Your task to perform on an android device: What's on my calendar today? Image 0: 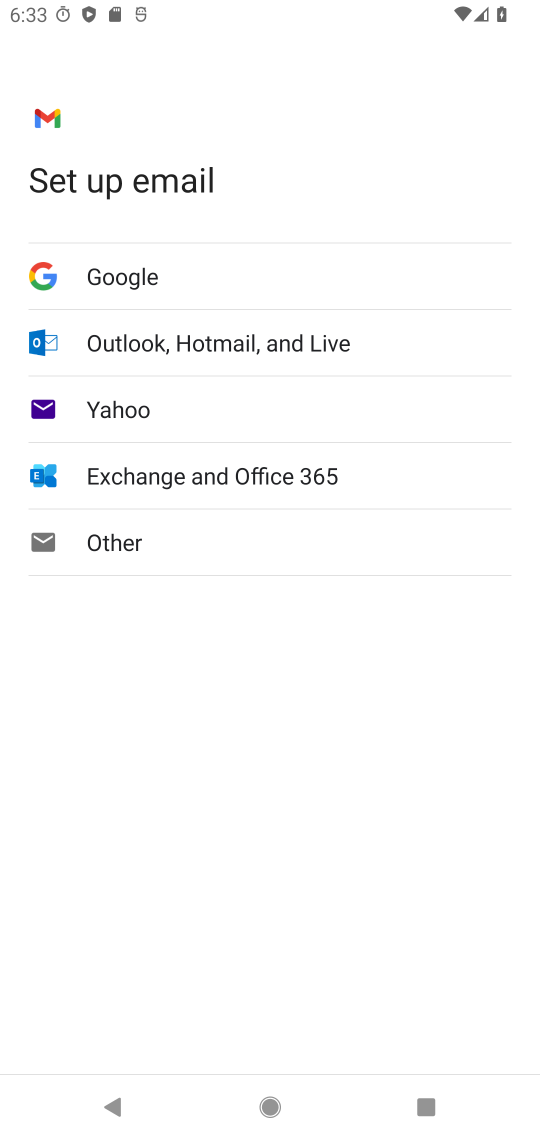
Step 0: press home button
Your task to perform on an android device: What's on my calendar today? Image 1: 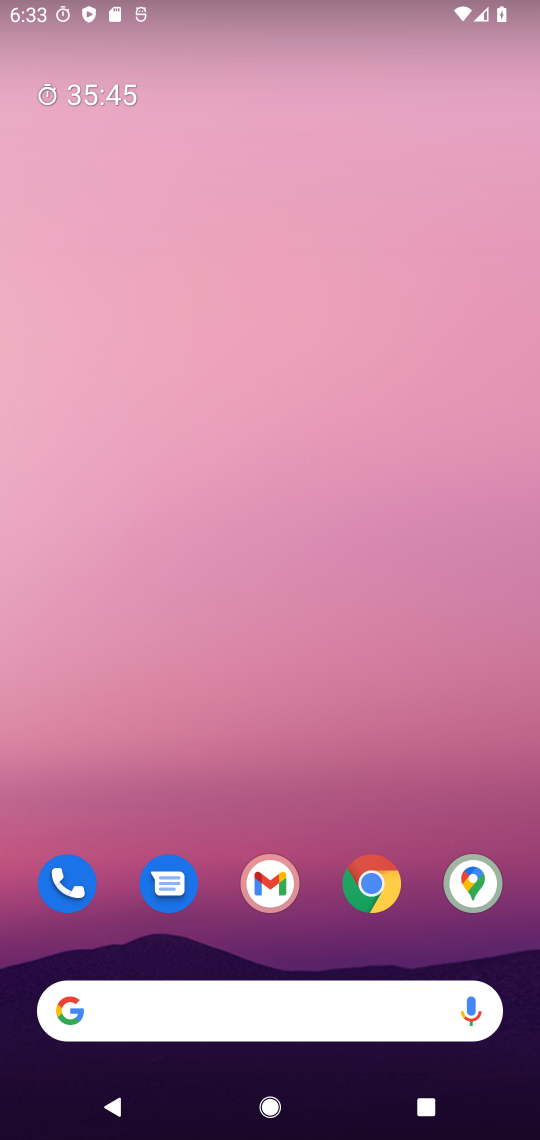
Step 1: drag from (206, 792) to (222, 296)
Your task to perform on an android device: What's on my calendar today? Image 2: 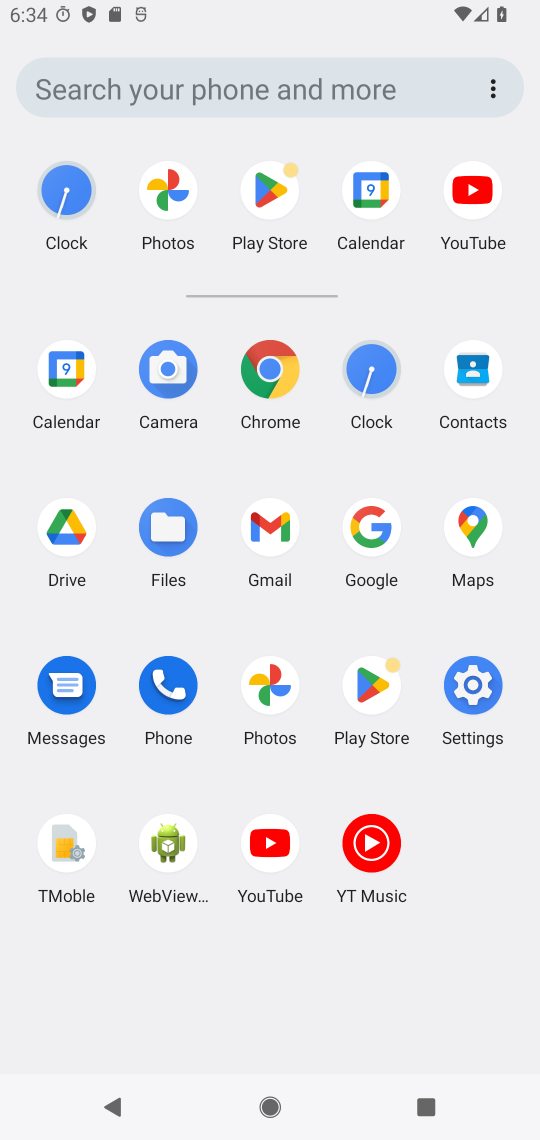
Step 2: click (80, 370)
Your task to perform on an android device: What's on my calendar today? Image 3: 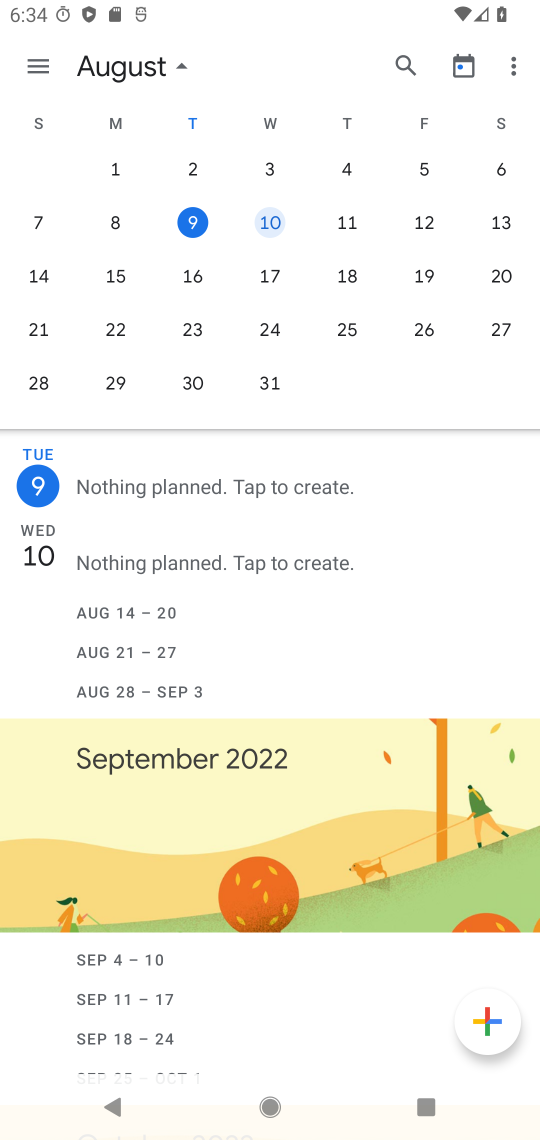
Step 3: click (270, 224)
Your task to perform on an android device: What's on my calendar today? Image 4: 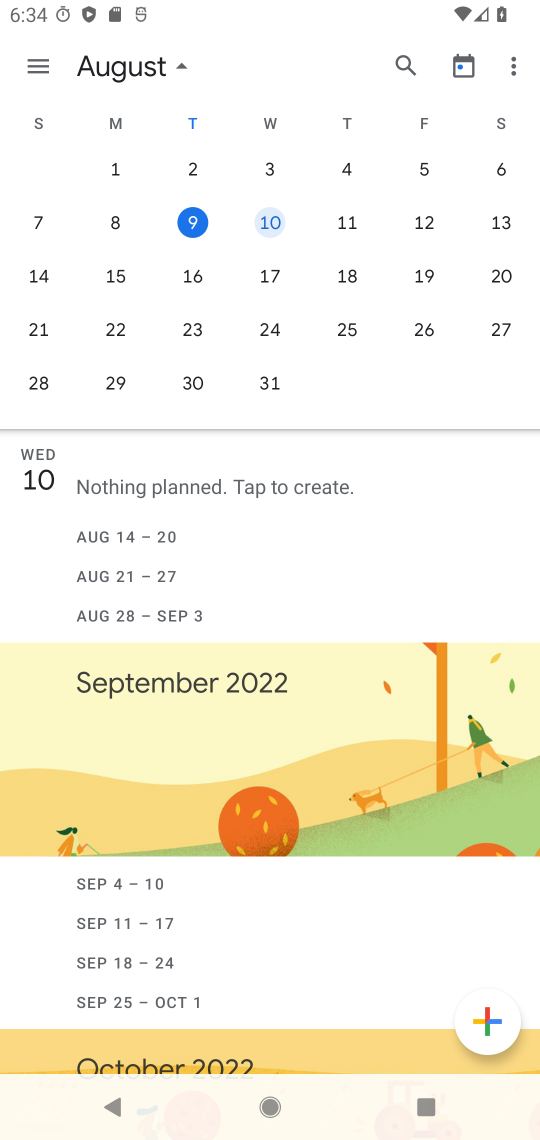
Step 4: click (207, 212)
Your task to perform on an android device: What's on my calendar today? Image 5: 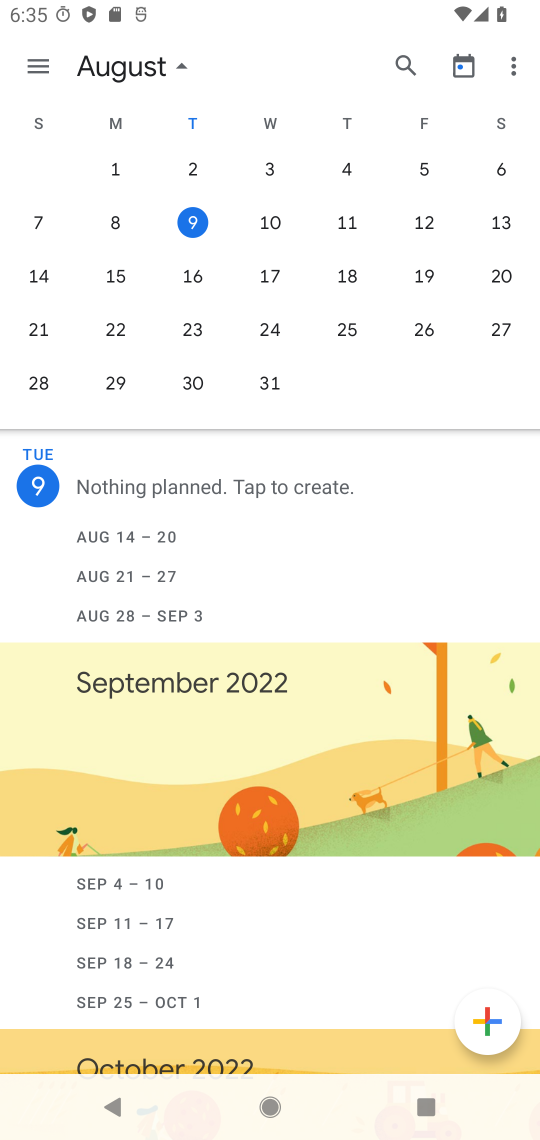
Step 5: task complete